Your task to perform on an android device: Search for vegetarian restaurants on Maps Image 0: 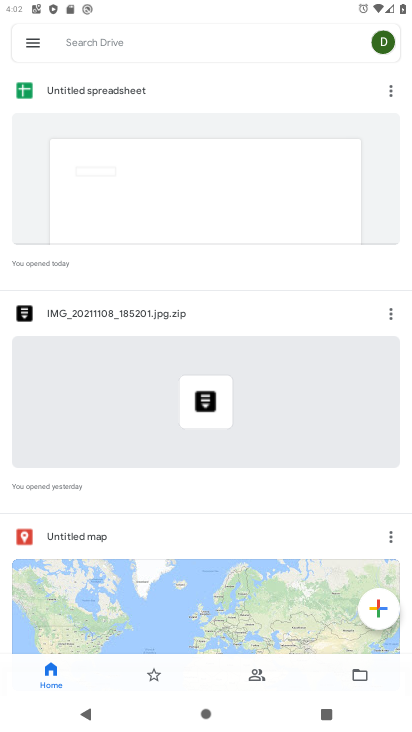
Step 0: click (121, 45)
Your task to perform on an android device: Search for vegetarian restaurants on Maps Image 1: 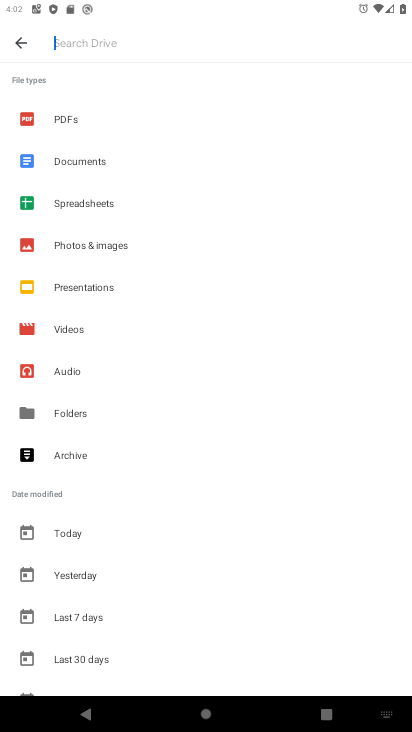
Step 1: press home button
Your task to perform on an android device: Search for vegetarian restaurants on Maps Image 2: 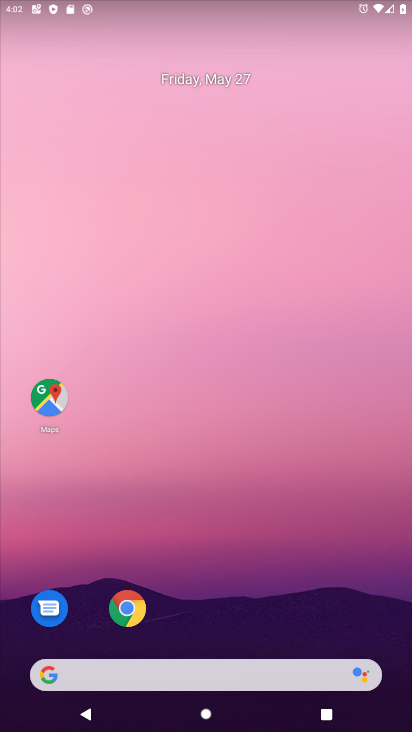
Step 2: click (50, 394)
Your task to perform on an android device: Search for vegetarian restaurants on Maps Image 3: 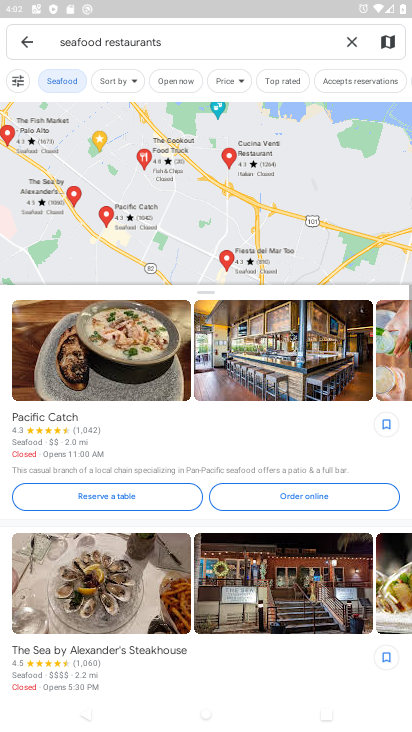
Step 3: click (156, 41)
Your task to perform on an android device: Search for vegetarian restaurants on Maps Image 4: 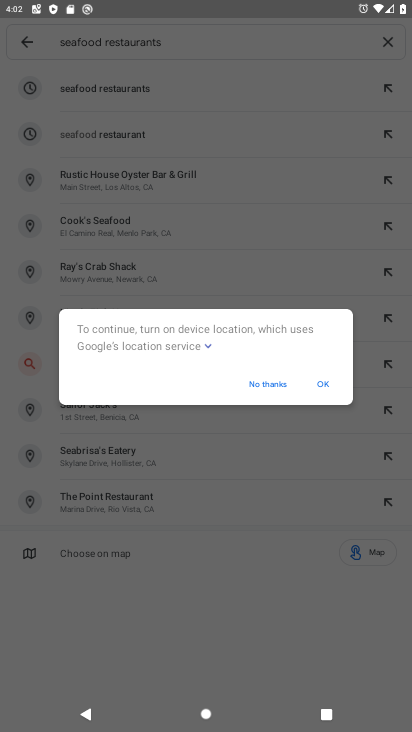
Step 4: click (324, 383)
Your task to perform on an android device: Search for vegetarian restaurants on Maps Image 5: 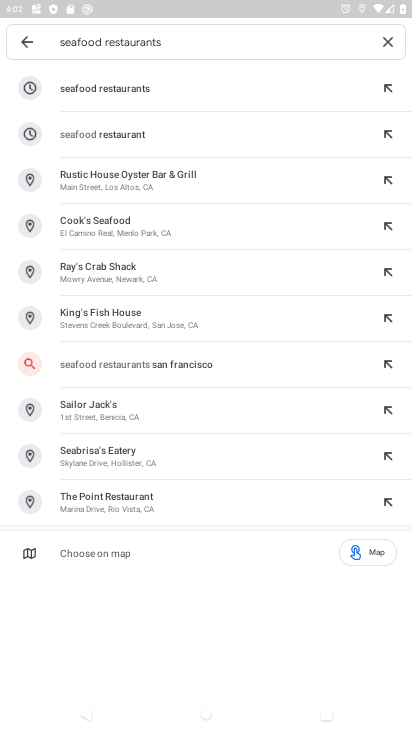
Step 5: click (392, 38)
Your task to perform on an android device: Search for vegetarian restaurants on Maps Image 6: 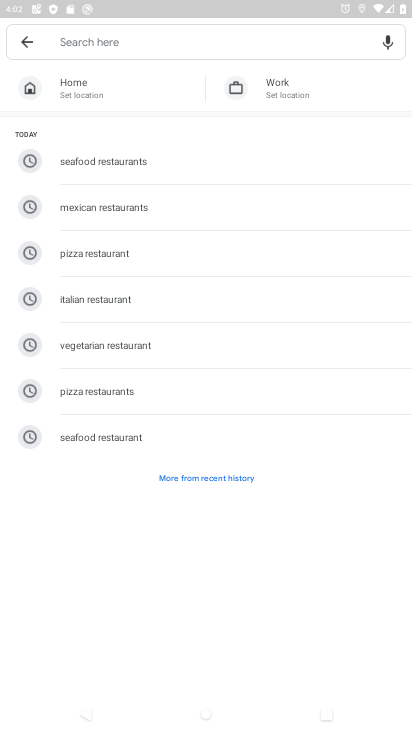
Step 6: click (112, 346)
Your task to perform on an android device: Search for vegetarian restaurants on Maps Image 7: 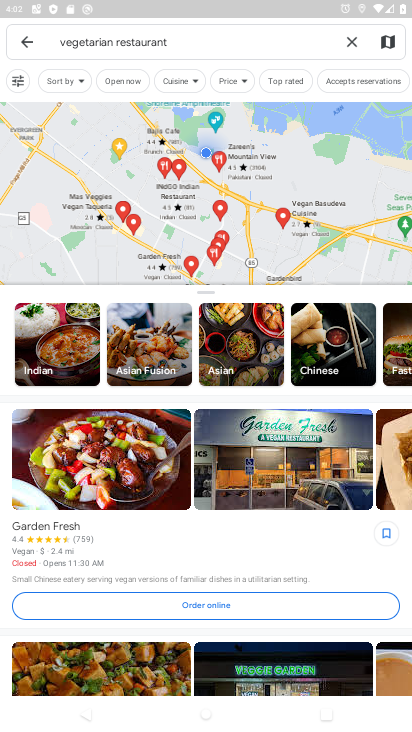
Step 7: task complete